Your task to perform on an android device: turn on location history Image 0: 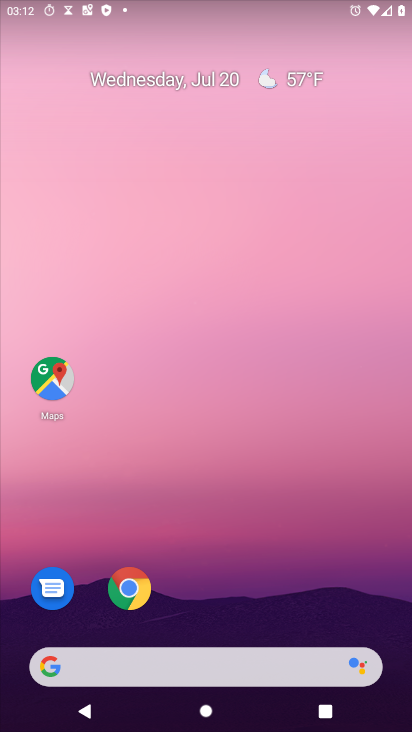
Step 0: drag from (246, 689) to (205, 119)
Your task to perform on an android device: turn on location history Image 1: 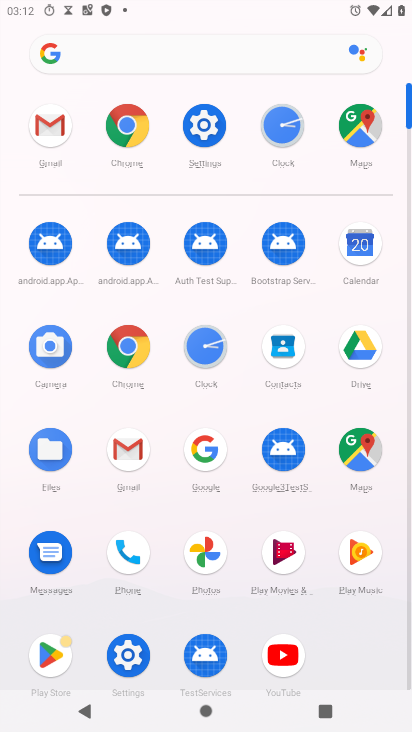
Step 1: click (211, 129)
Your task to perform on an android device: turn on location history Image 2: 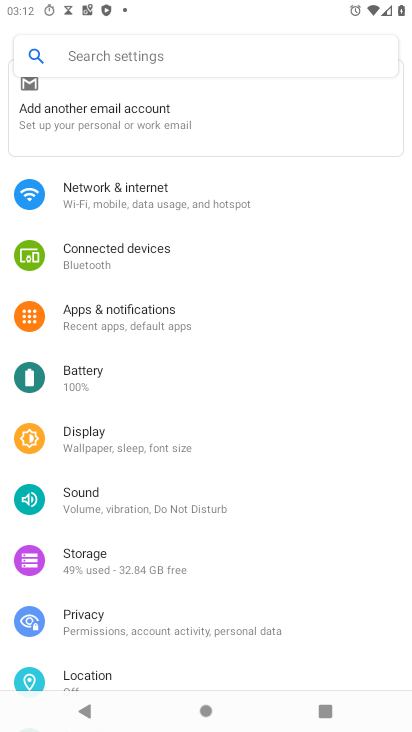
Step 2: click (113, 677)
Your task to perform on an android device: turn on location history Image 3: 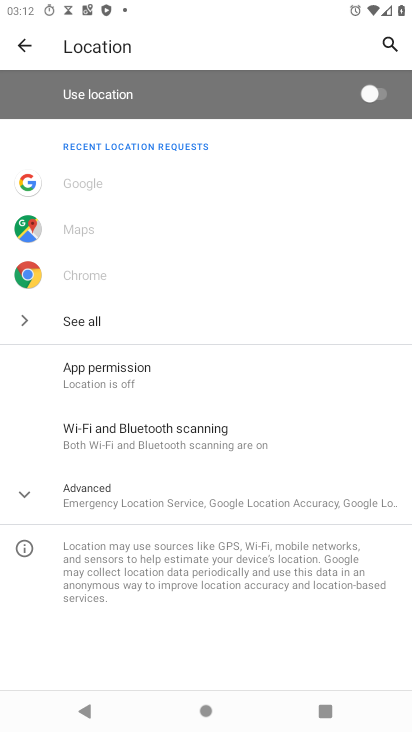
Step 3: click (131, 502)
Your task to perform on an android device: turn on location history Image 4: 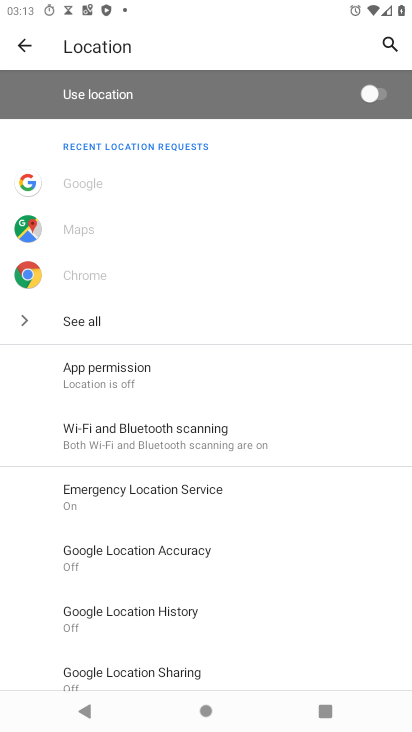
Step 4: click (124, 614)
Your task to perform on an android device: turn on location history Image 5: 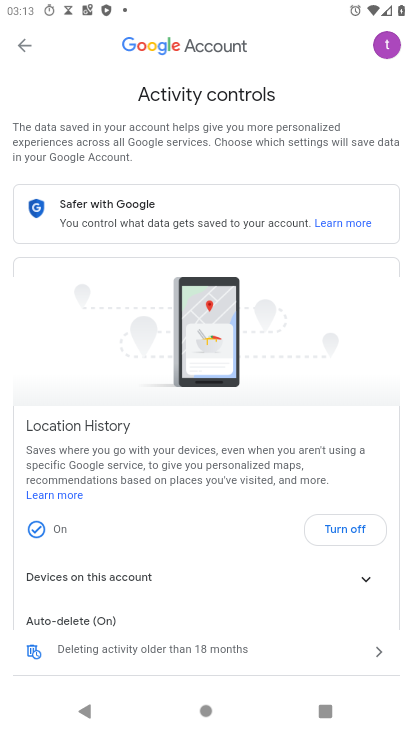
Step 5: task complete